Your task to perform on an android device: Open internet settings Image 0: 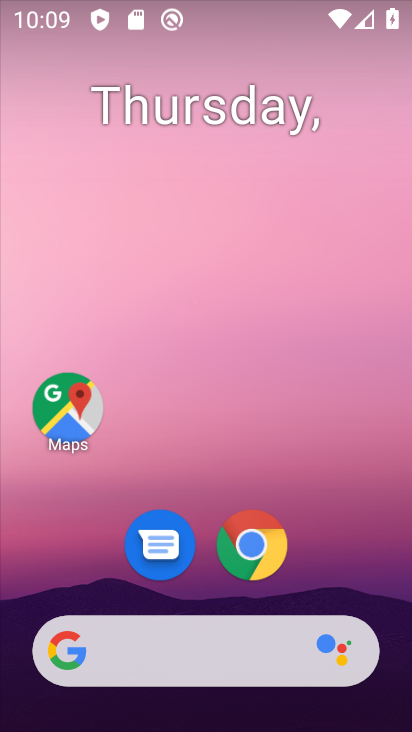
Step 0: drag from (324, 555) to (233, 92)
Your task to perform on an android device: Open internet settings Image 1: 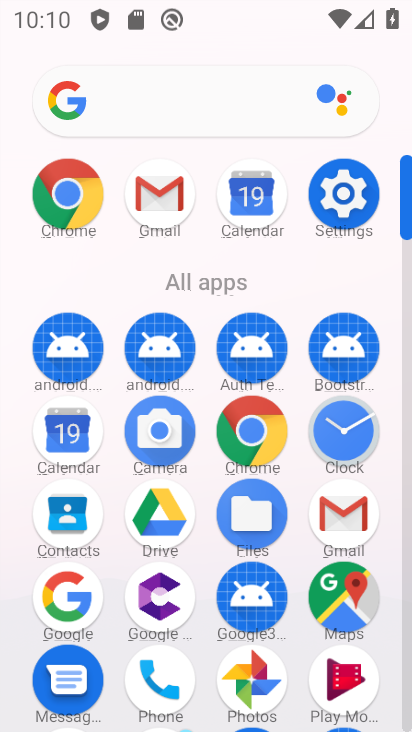
Step 1: click (341, 194)
Your task to perform on an android device: Open internet settings Image 2: 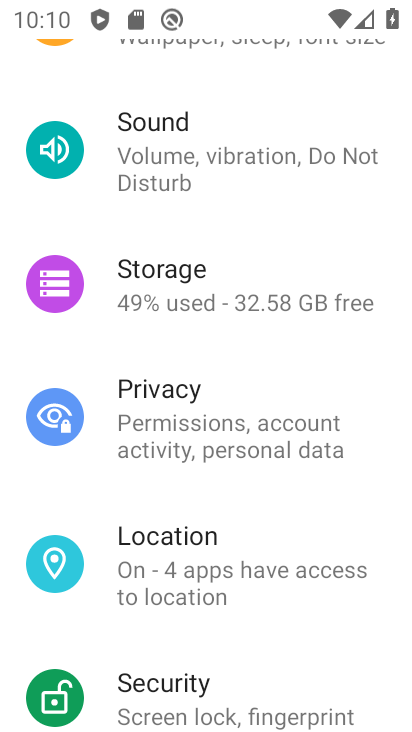
Step 2: drag from (207, 226) to (267, 393)
Your task to perform on an android device: Open internet settings Image 3: 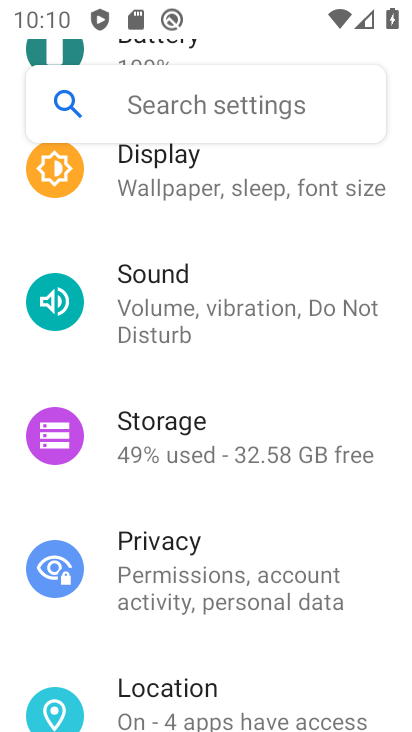
Step 3: drag from (212, 231) to (185, 378)
Your task to perform on an android device: Open internet settings Image 4: 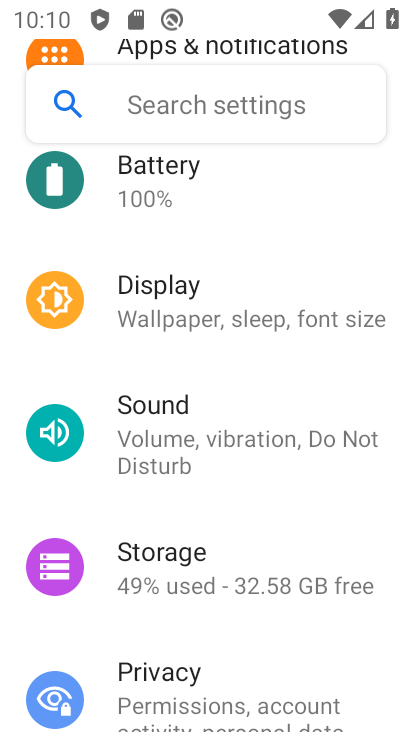
Step 4: drag from (178, 250) to (176, 441)
Your task to perform on an android device: Open internet settings Image 5: 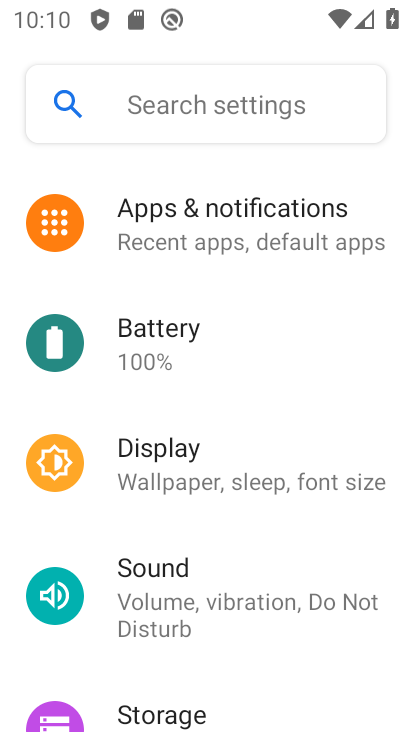
Step 5: drag from (224, 297) to (192, 451)
Your task to perform on an android device: Open internet settings Image 6: 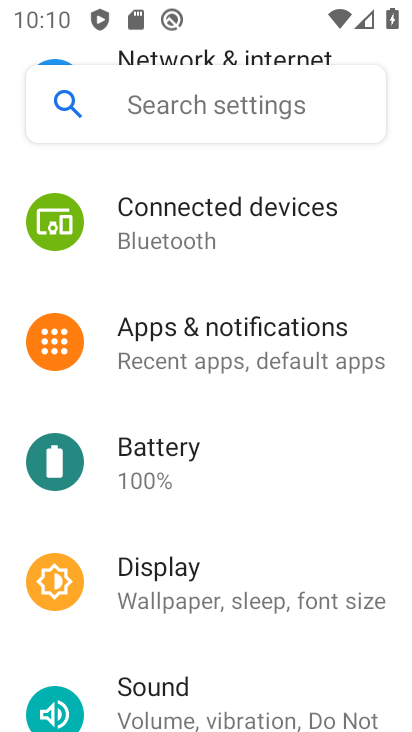
Step 6: drag from (198, 294) to (202, 426)
Your task to perform on an android device: Open internet settings Image 7: 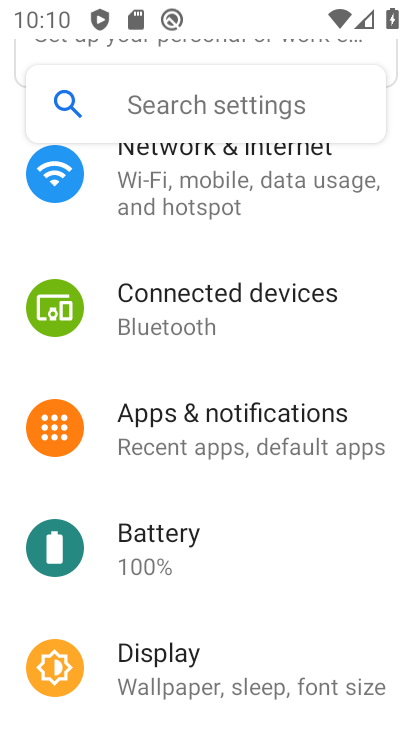
Step 7: drag from (215, 252) to (237, 402)
Your task to perform on an android device: Open internet settings Image 8: 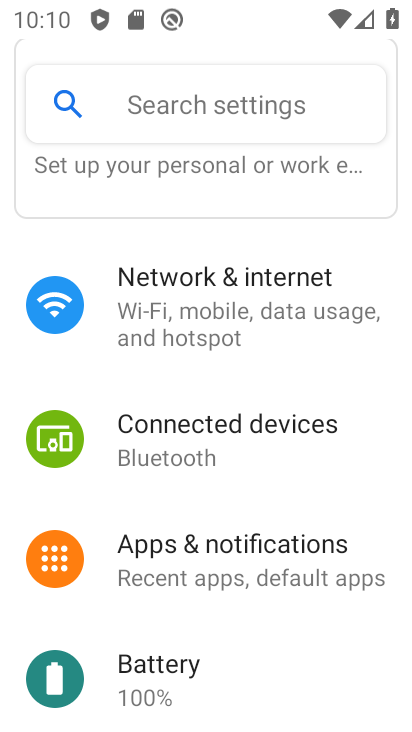
Step 8: click (205, 278)
Your task to perform on an android device: Open internet settings Image 9: 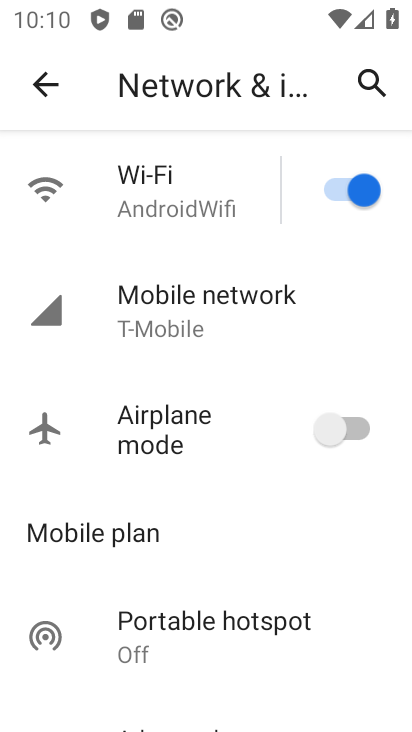
Step 9: click (135, 171)
Your task to perform on an android device: Open internet settings Image 10: 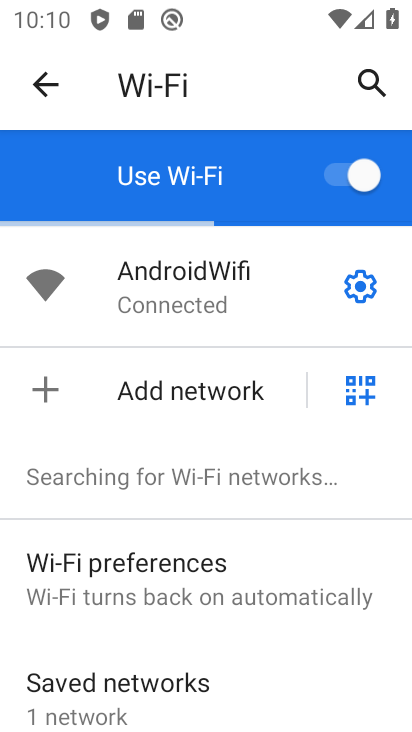
Step 10: click (349, 286)
Your task to perform on an android device: Open internet settings Image 11: 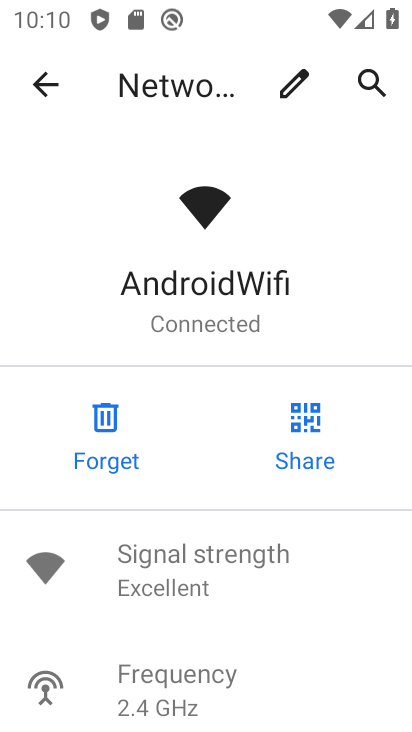
Step 11: task complete